Your task to perform on an android device: turn pop-ups off in chrome Image 0: 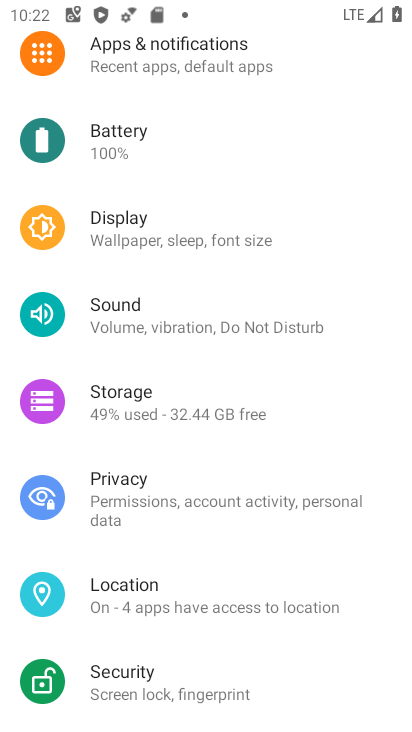
Step 0: press home button
Your task to perform on an android device: turn pop-ups off in chrome Image 1: 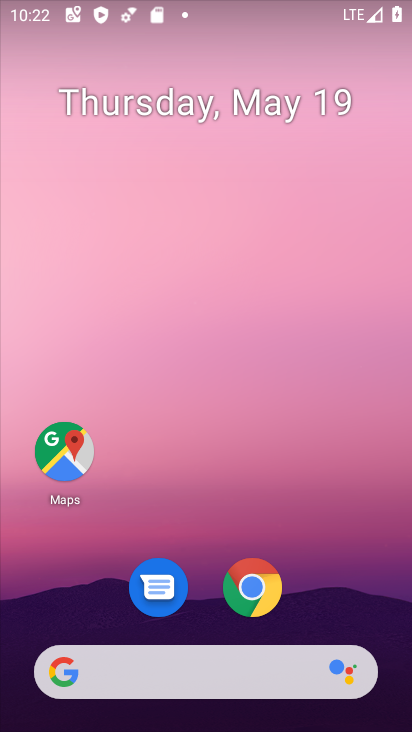
Step 1: click (267, 599)
Your task to perform on an android device: turn pop-ups off in chrome Image 2: 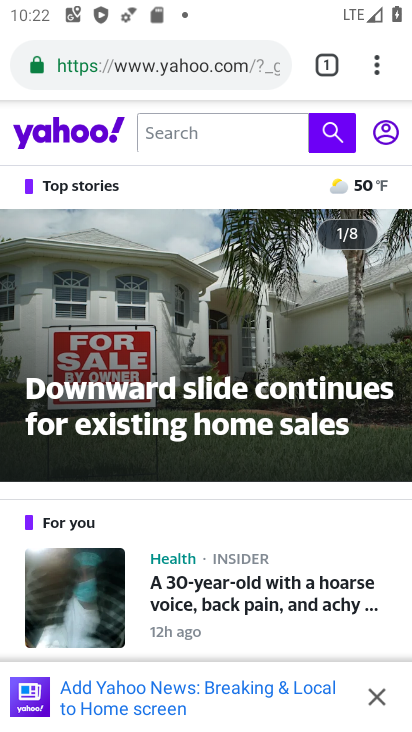
Step 2: click (370, 67)
Your task to perform on an android device: turn pop-ups off in chrome Image 3: 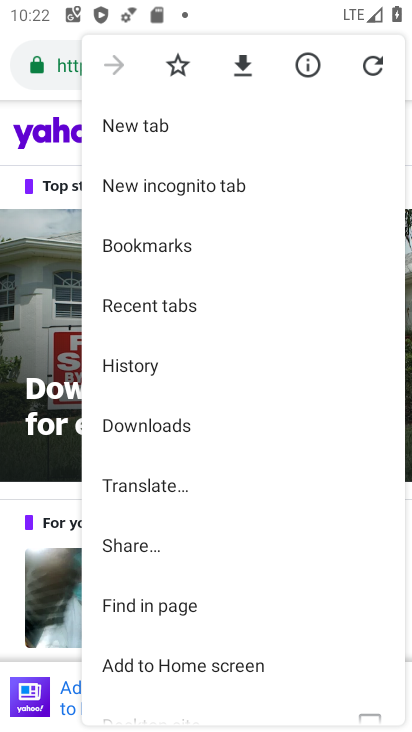
Step 3: drag from (160, 630) to (105, 116)
Your task to perform on an android device: turn pop-ups off in chrome Image 4: 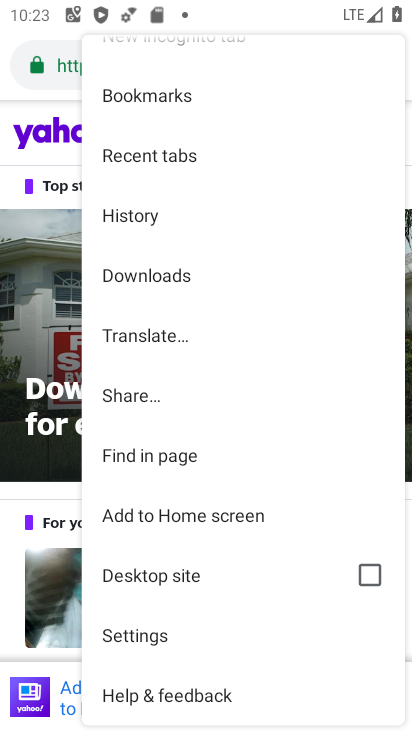
Step 4: click (170, 643)
Your task to perform on an android device: turn pop-ups off in chrome Image 5: 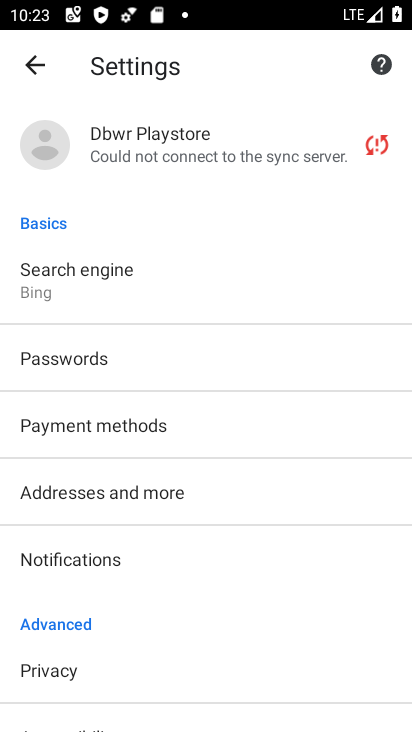
Step 5: drag from (170, 643) to (201, 112)
Your task to perform on an android device: turn pop-ups off in chrome Image 6: 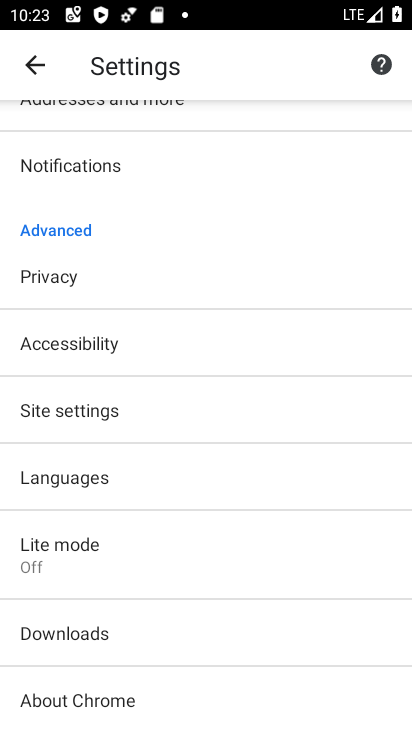
Step 6: click (72, 420)
Your task to perform on an android device: turn pop-ups off in chrome Image 7: 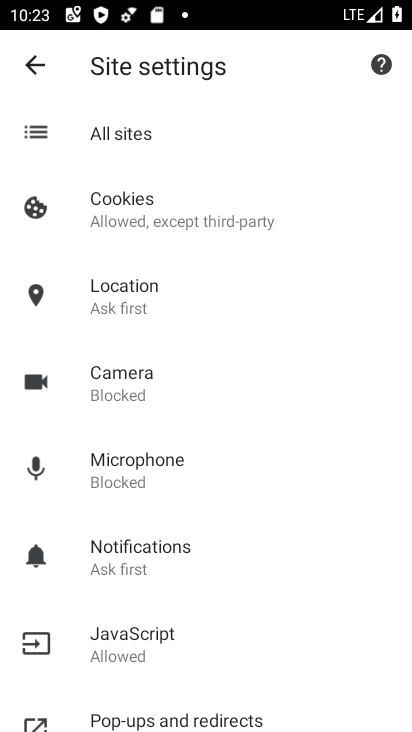
Step 7: click (166, 721)
Your task to perform on an android device: turn pop-ups off in chrome Image 8: 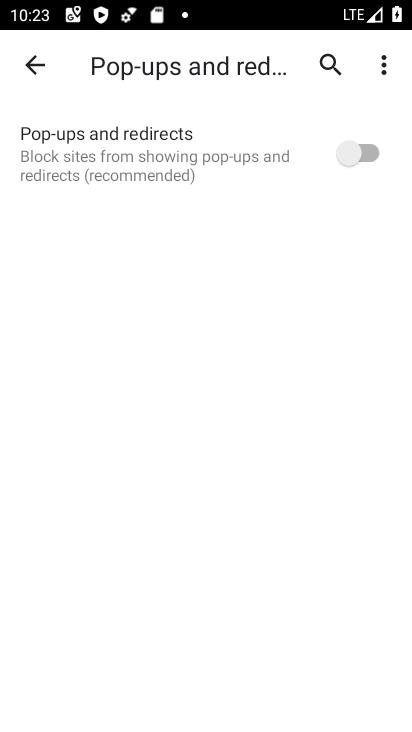
Step 8: task complete